Your task to perform on an android device: open app "Cash App" (install if not already installed) Image 0: 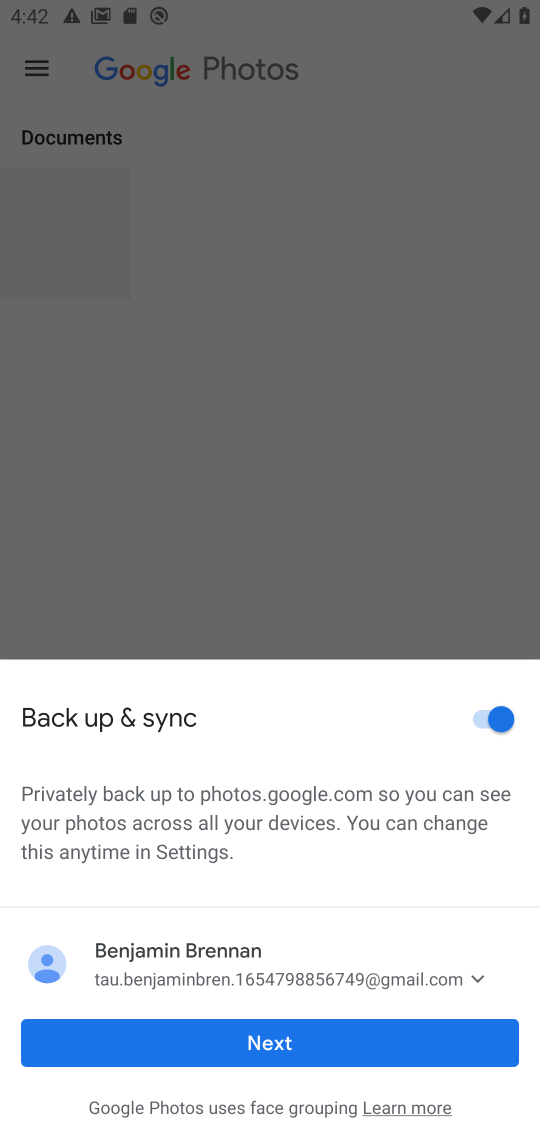
Step 0: press home button
Your task to perform on an android device: open app "Cash App" (install if not already installed) Image 1: 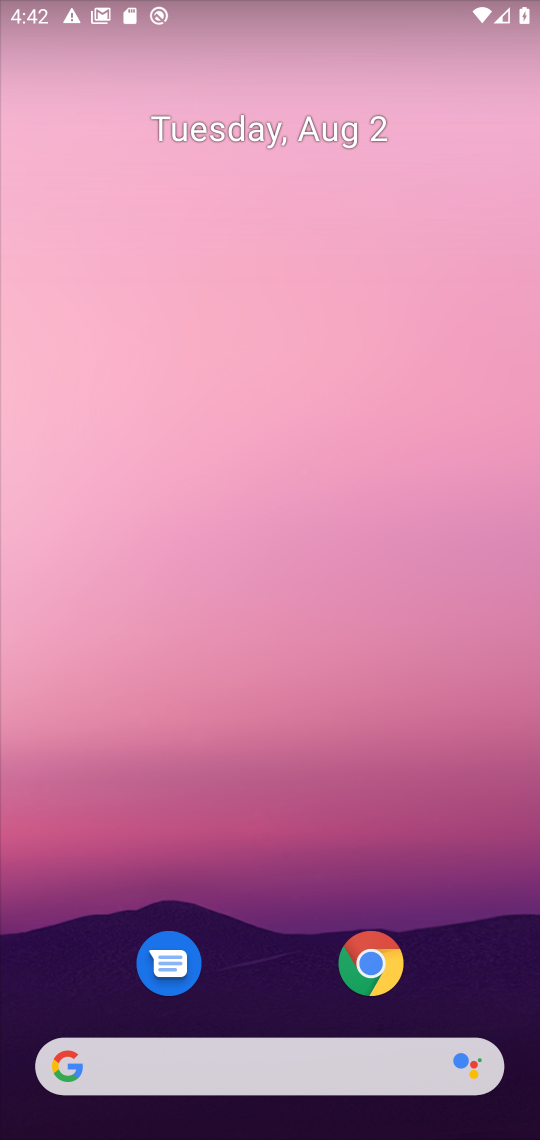
Step 1: drag from (228, 1038) to (194, 256)
Your task to perform on an android device: open app "Cash App" (install if not already installed) Image 2: 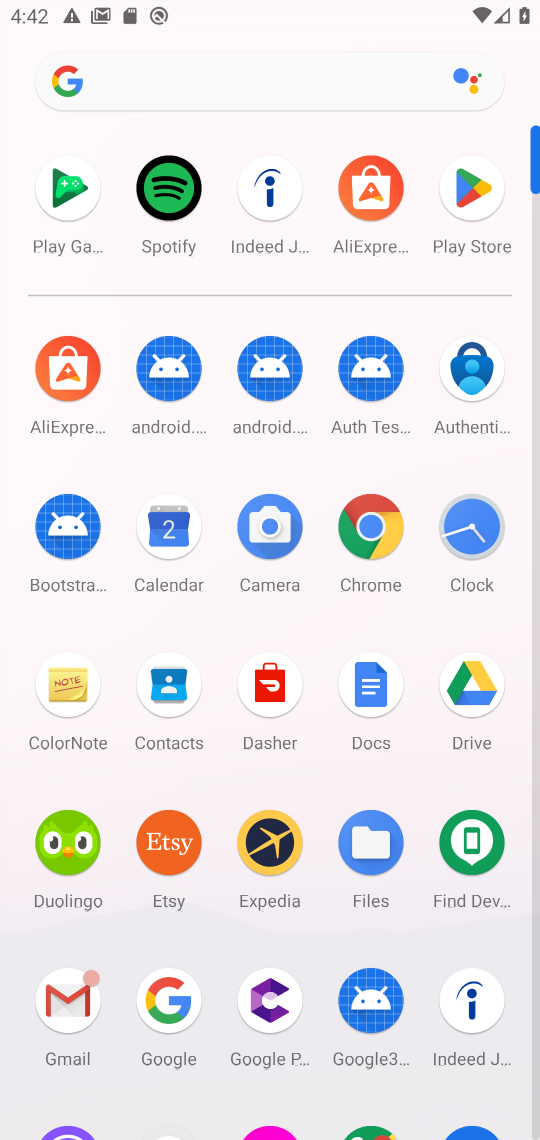
Step 2: click (471, 183)
Your task to perform on an android device: open app "Cash App" (install if not already installed) Image 3: 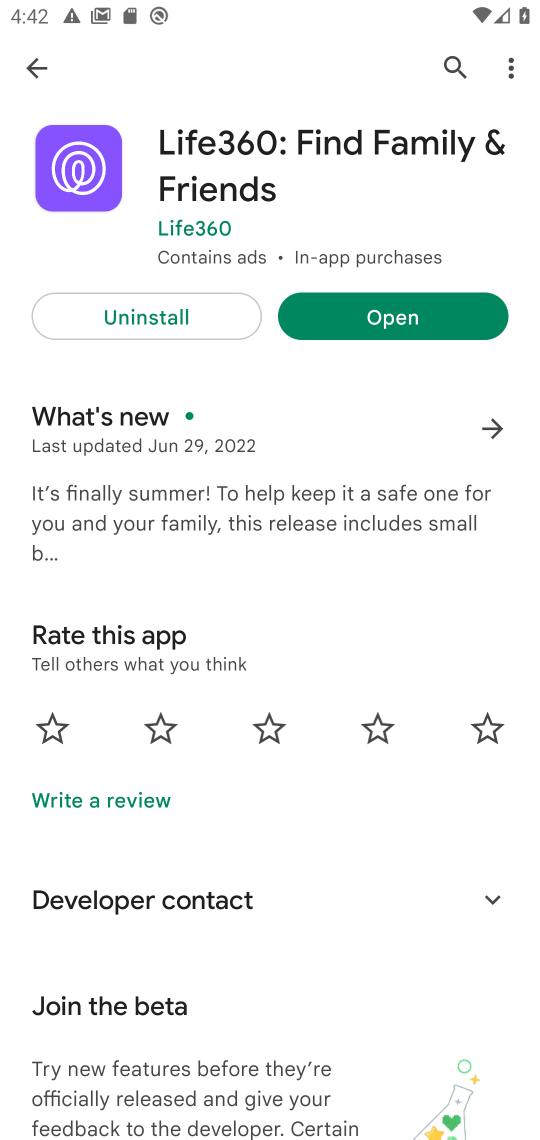
Step 3: click (446, 54)
Your task to perform on an android device: open app "Cash App" (install if not already installed) Image 4: 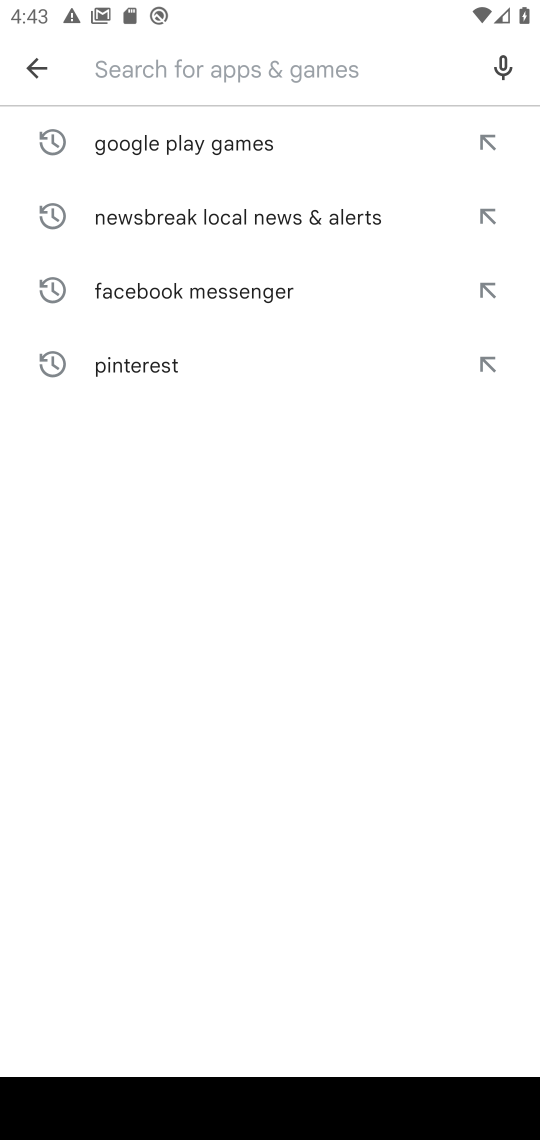
Step 4: type "Cash App"
Your task to perform on an android device: open app "Cash App" (install if not already installed) Image 5: 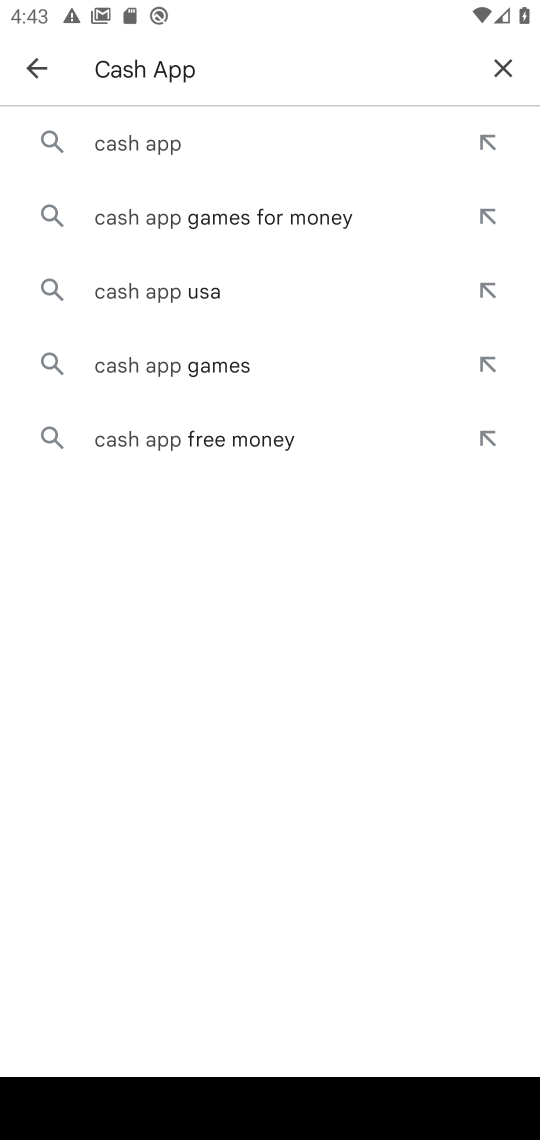
Step 5: click (208, 137)
Your task to perform on an android device: open app "Cash App" (install if not already installed) Image 6: 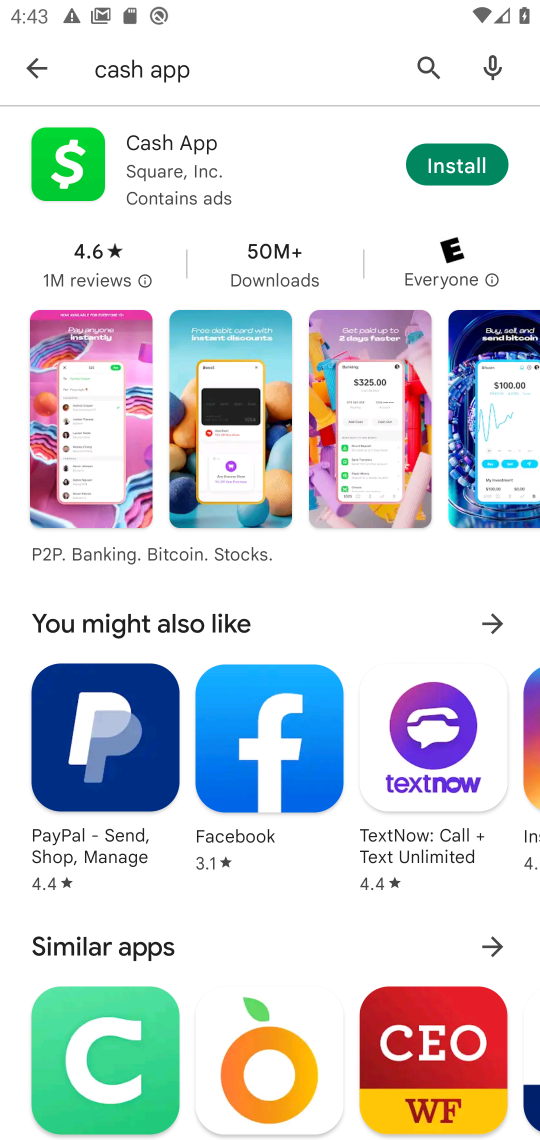
Step 6: click (449, 169)
Your task to perform on an android device: open app "Cash App" (install if not already installed) Image 7: 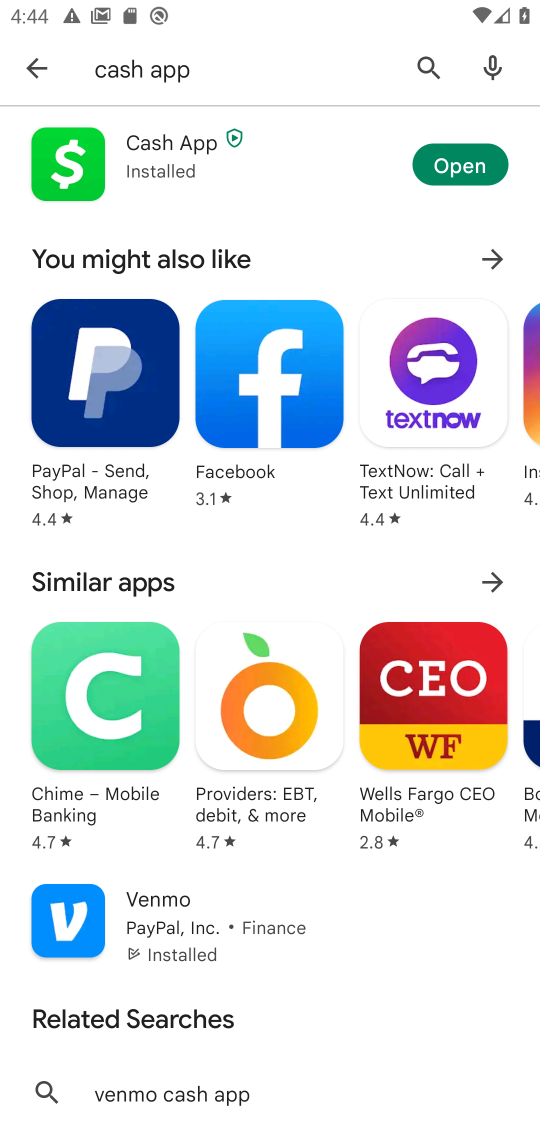
Step 7: click (443, 168)
Your task to perform on an android device: open app "Cash App" (install if not already installed) Image 8: 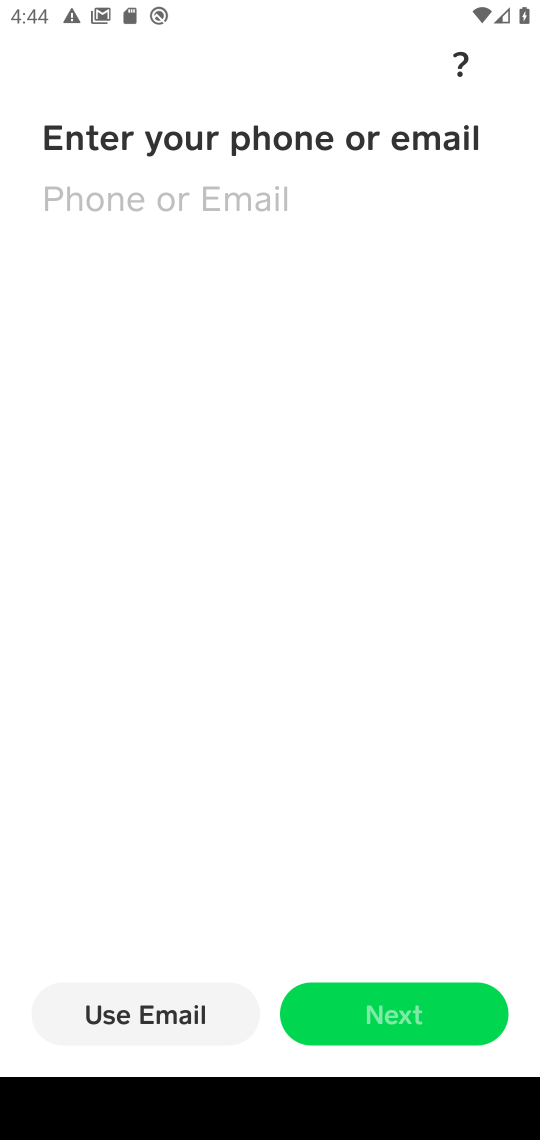
Step 8: task complete